Your task to perform on an android device: install app "Facebook Lite" Image 0: 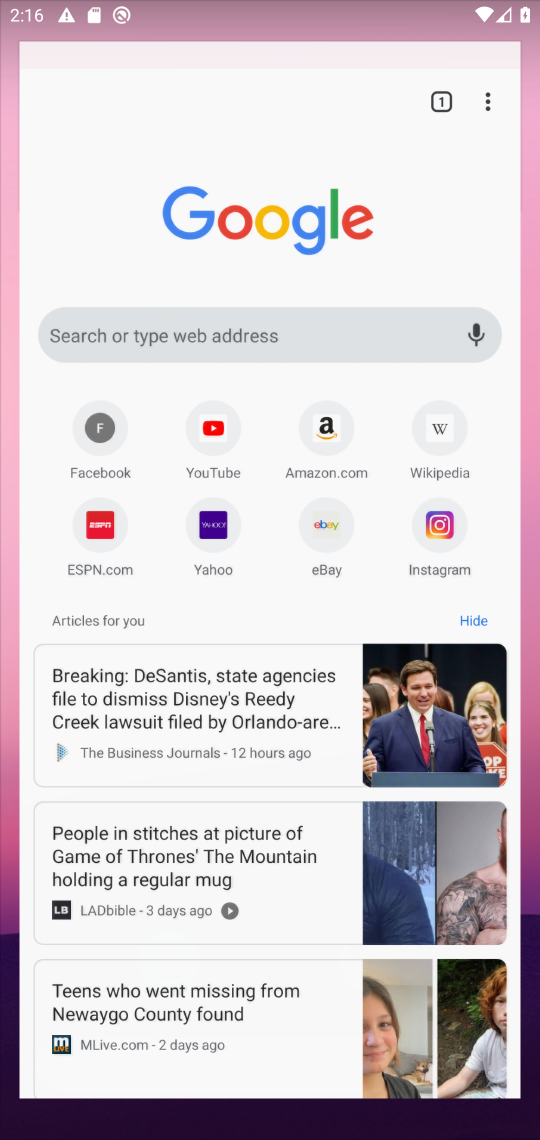
Step 0: press home button
Your task to perform on an android device: install app "Facebook Lite" Image 1: 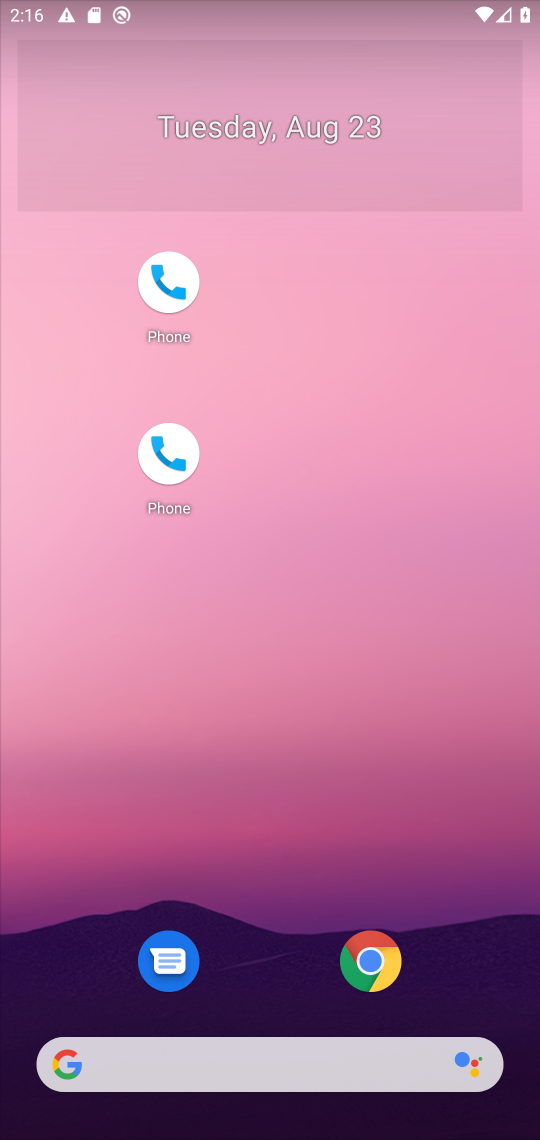
Step 1: drag from (229, 541) to (229, 95)
Your task to perform on an android device: install app "Facebook Lite" Image 2: 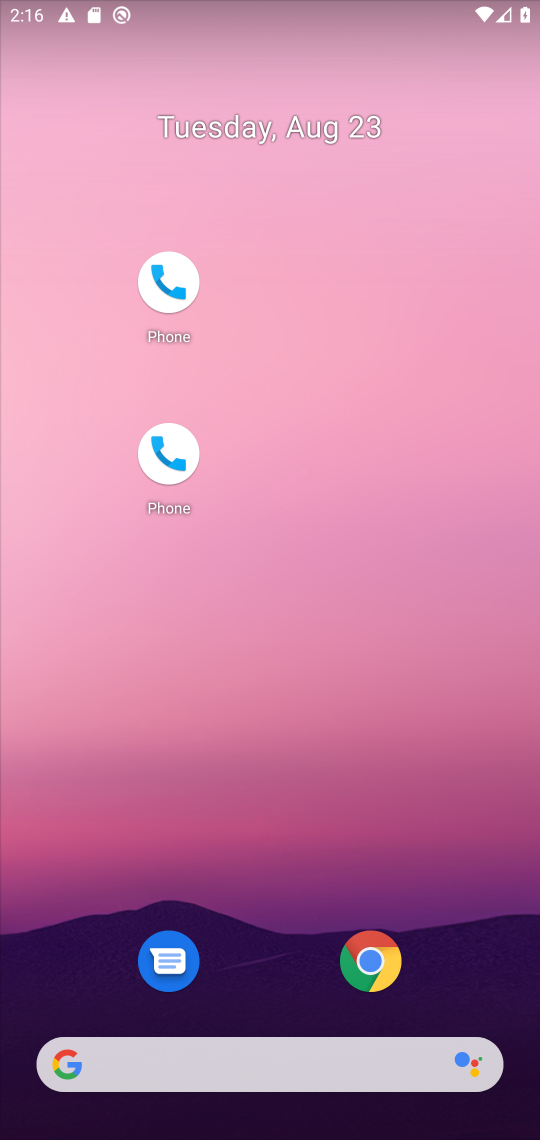
Step 2: drag from (262, 990) to (341, 118)
Your task to perform on an android device: install app "Facebook Lite" Image 3: 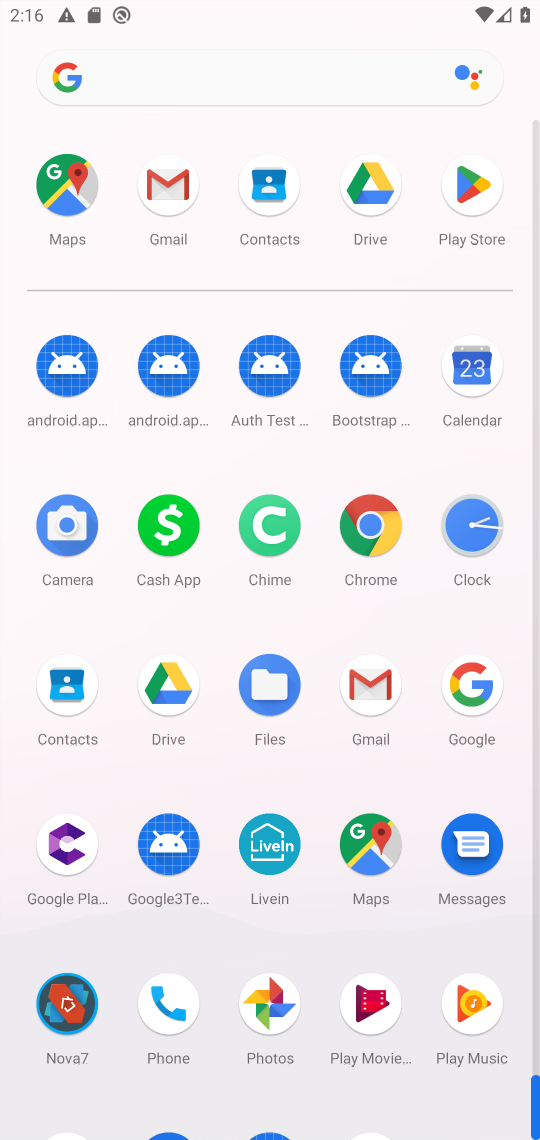
Step 3: click (461, 190)
Your task to perform on an android device: install app "Facebook Lite" Image 4: 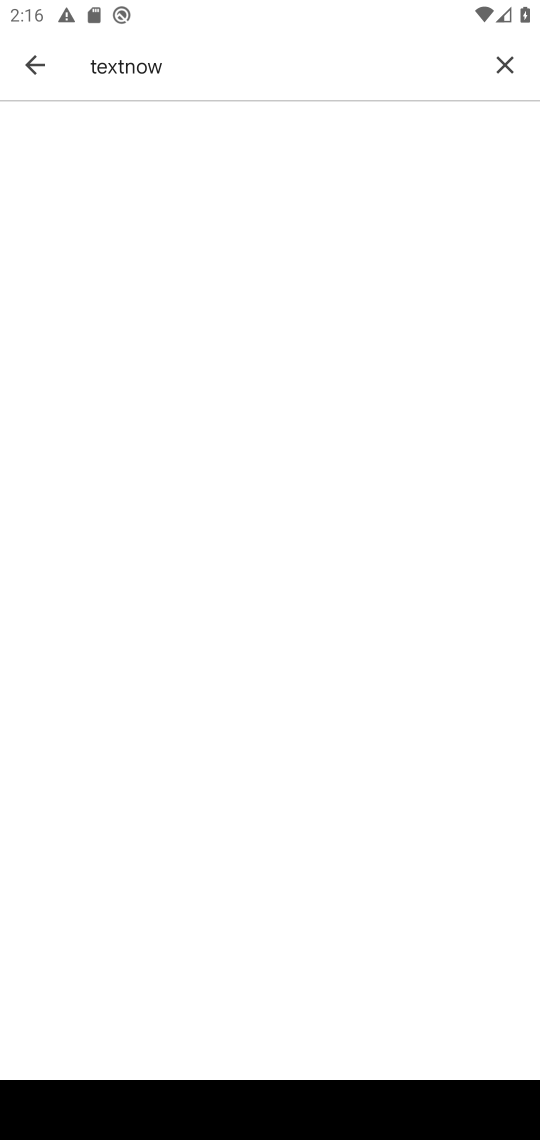
Step 4: click (506, 70)
Your task to perform on an android device: install app "Facebook Lite" Image 5: 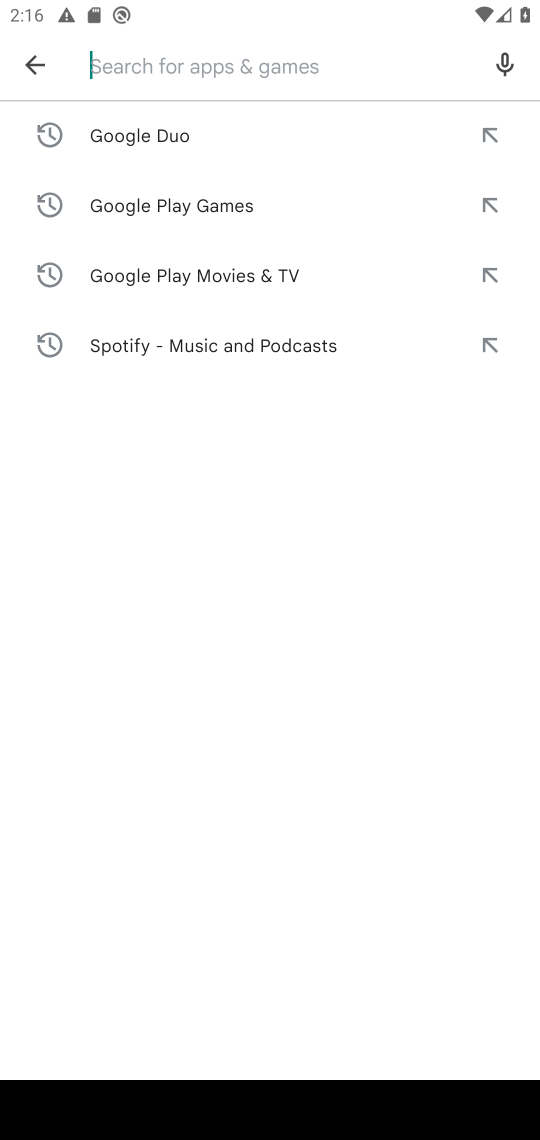
Step 5: type "facebook"
Your task to perform on an android device: install app "Facebook Lite" Image 6: 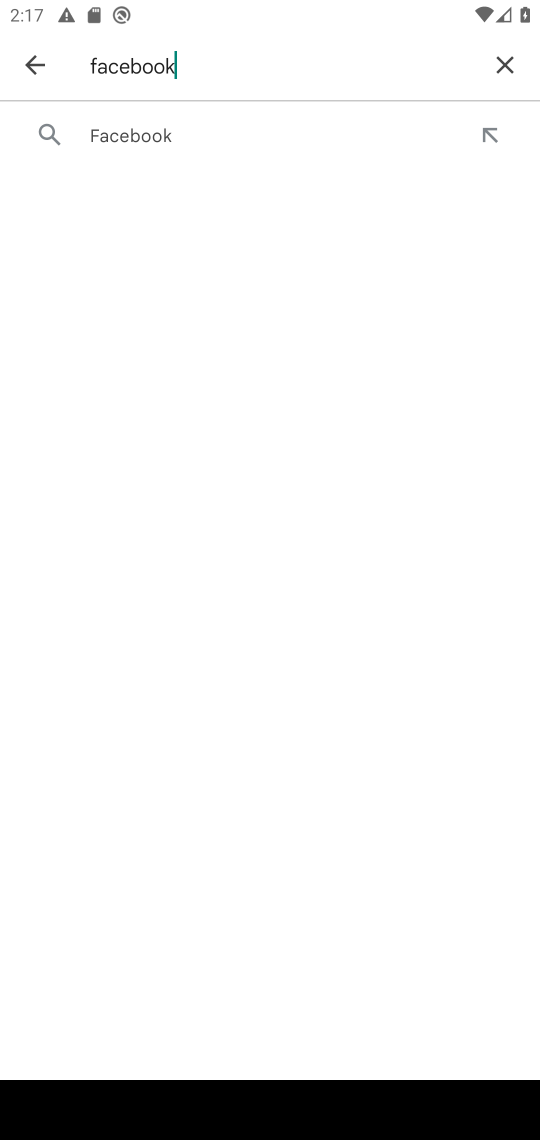
Step 6: click (213, 144)
Your task to perform on an android device: install app "Facebook Lite" Image 7: 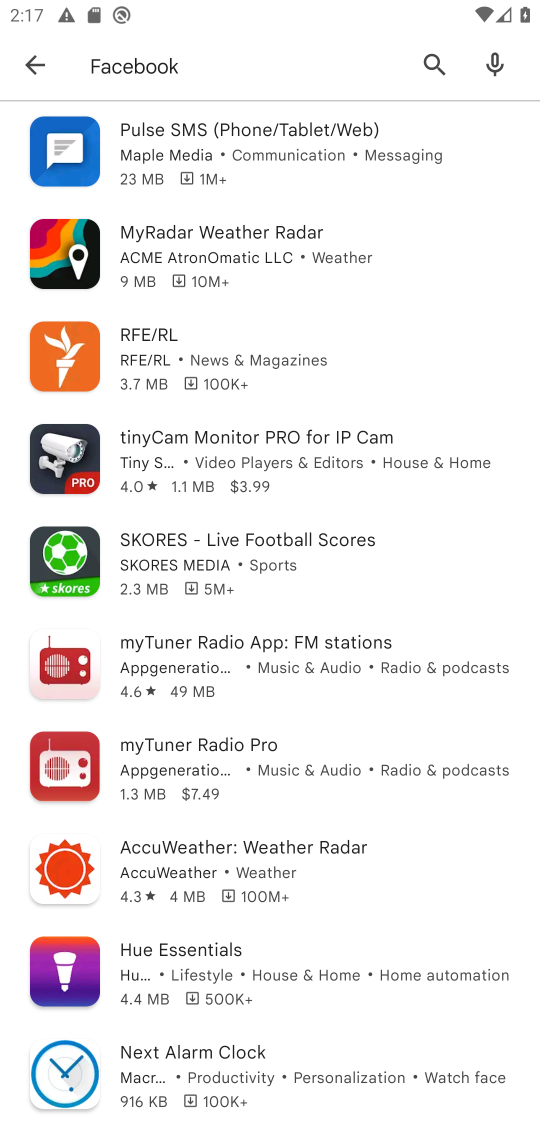
Step 7: task complete